Your task to perform on an android device: change your default location settings in chrome Image 0: 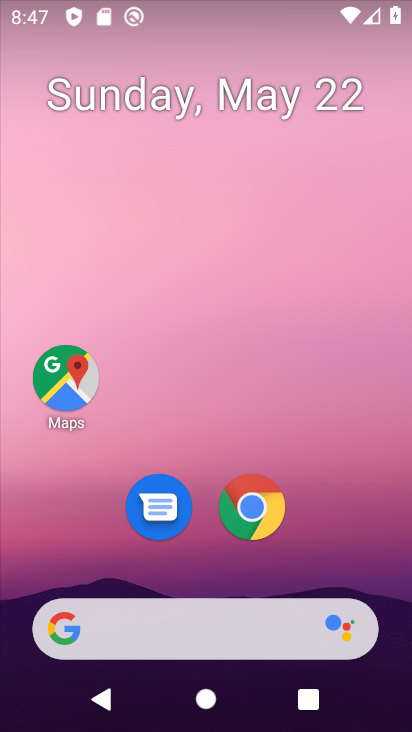
Step 0: click (262, 513)
Your task to perform on an android device: change your default location settings in chrome Image 1: 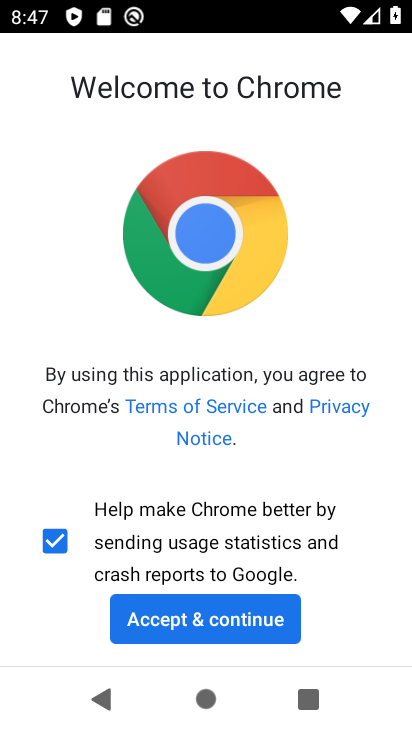
Step 1: click (232, 624)
Your task to perform on an android device: change your default location settings in chrome Image 2: 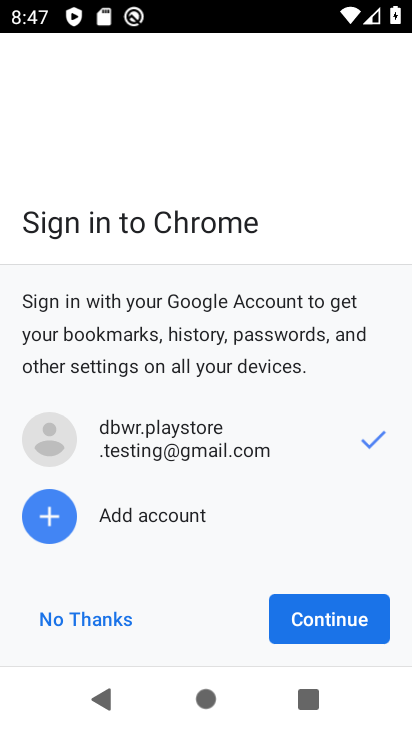
Step 2: click (313, 607)
Your task to perform on an android device: change your default location settings in chrome Image 3: 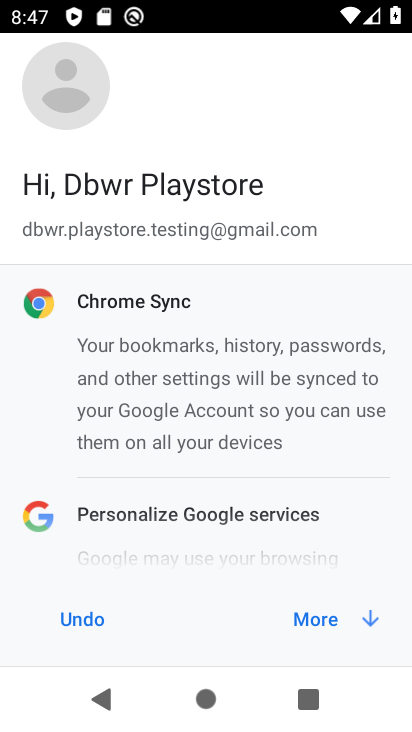
Step 3: click (313, 607)
Your task to perform on an android device: change your default location settings in chrome Image 4: 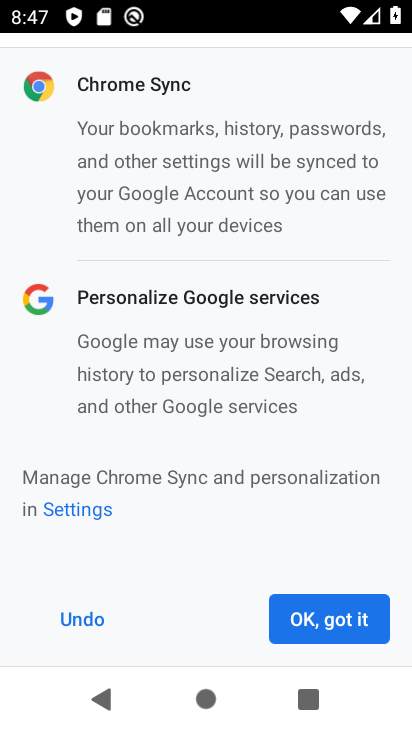
Step 4: click (313, 607)
Your task to perform on an android device: change your default location settings in chrome Image 5: 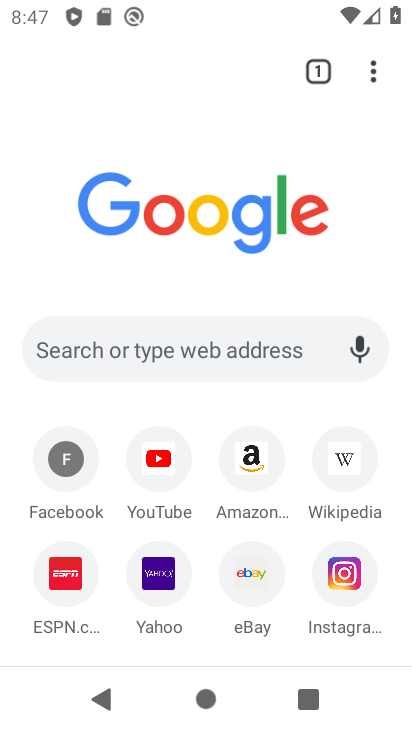
Step 5: click (373, 66)
Your task to perform on an android device: change your default location settings in chrome Image 6: 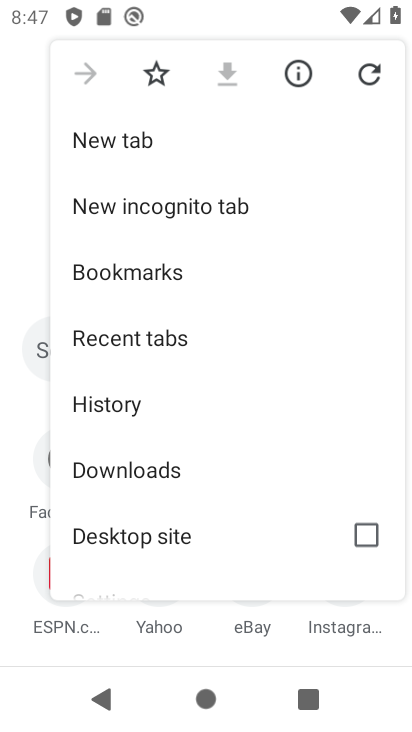
Step 6: click (146, 574)
Your task to perform on an android device: change your default location settings in chrome Image 7: 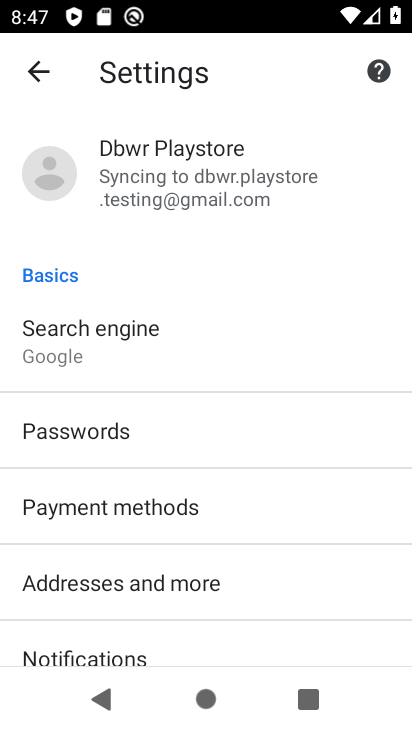
Step 7: drag from (146, 574) to (128, 238)
Your task to perform on an android device: change your default location settings in chrome Image 8: 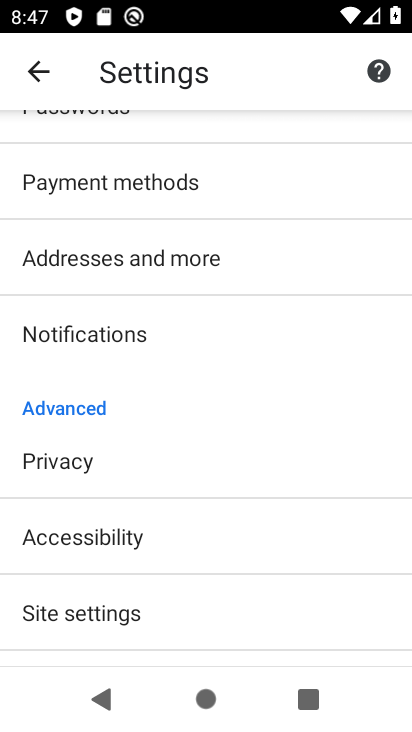
Step 8: drag from (148, 624) to (74, 213)
Your task to perform on an android device: change your default location settings in chrome Image 9: 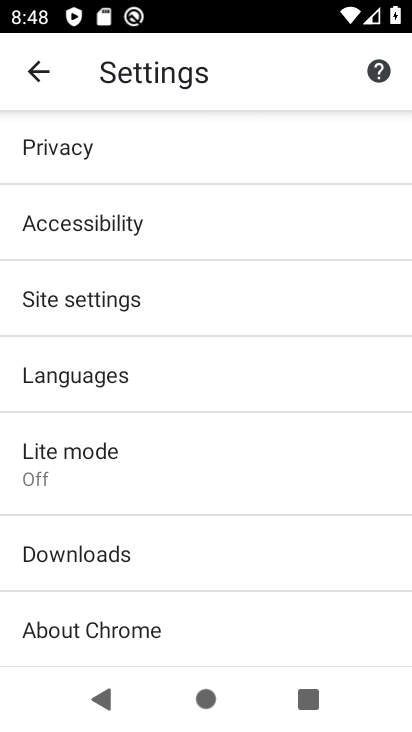
Step 9: drag from (166, 295) to (110, 715)
Your task to perform on an android device: change your default location settings in chrome Image 10: 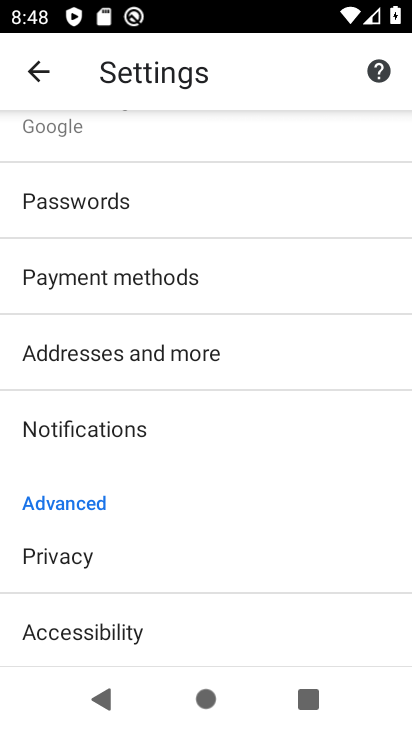
Step 10: drag from (131, 544) to (123, 282)
Your task to perform on an android device: change your default location settings in chrome Image 11: 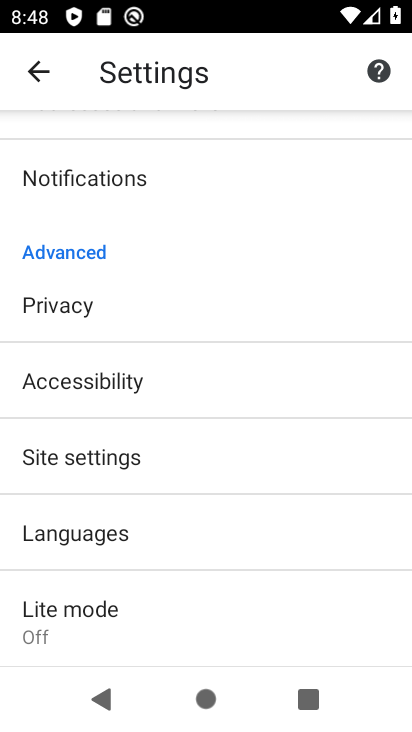
Step 11: click (68, 482)
Your task to perform on an android device: change your default location settings in chrome Image 12: 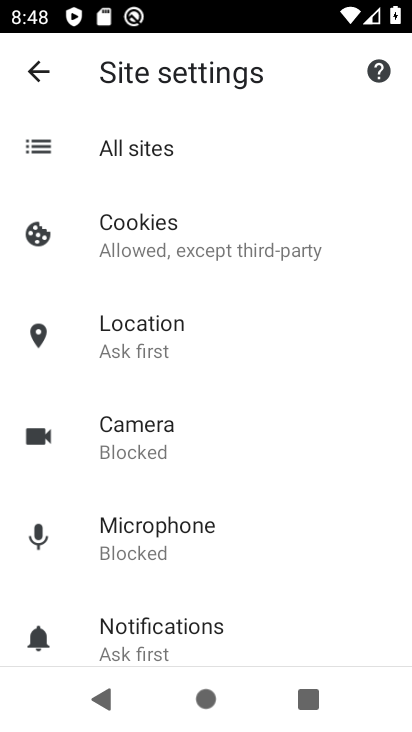
Step 12: click (162, 340)
Your task to perform on an android device: change your default location settings in chrome Image 13: 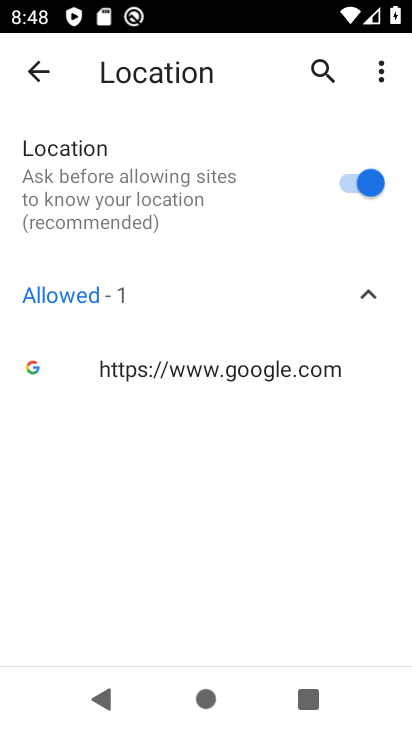
Step 13: click (365, 191)
Your task to perform on an android device: change your default location settings in chrome Image 14: 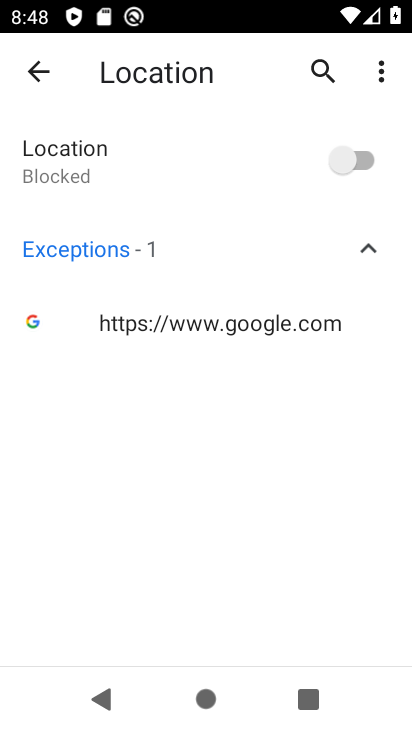
Step 14: task complete